Your task to perform on an android device: Toggle the flashlight Image 0: 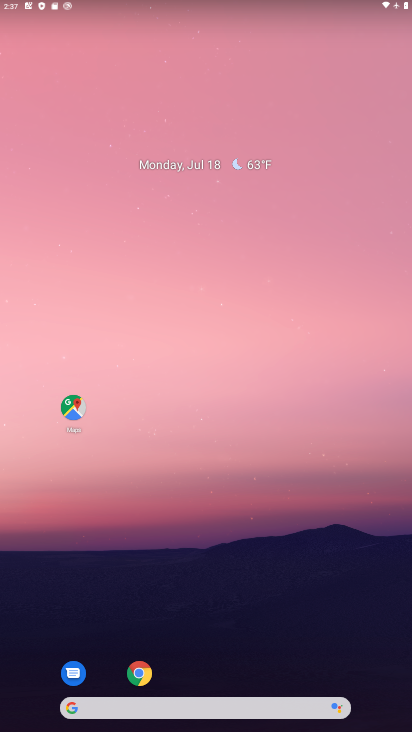
Step 0: drag from (223, 652) to (246, 247)
Your task to perform on an android device: Toggle the flashlight Image 1: 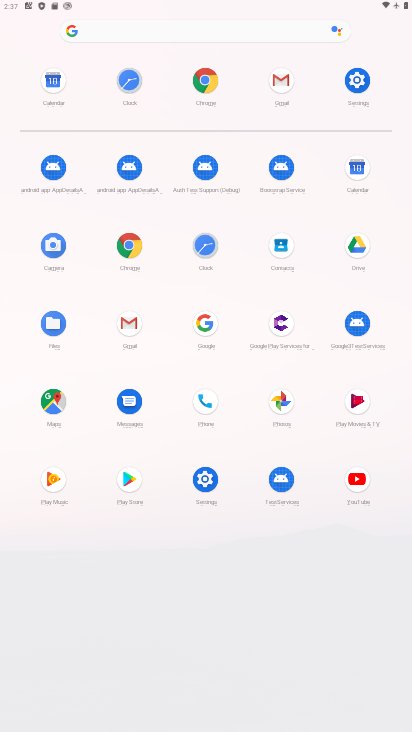
Step 1: click (360, 70)
Your task to perform on an android device: Toggle the flashlight Image 2: 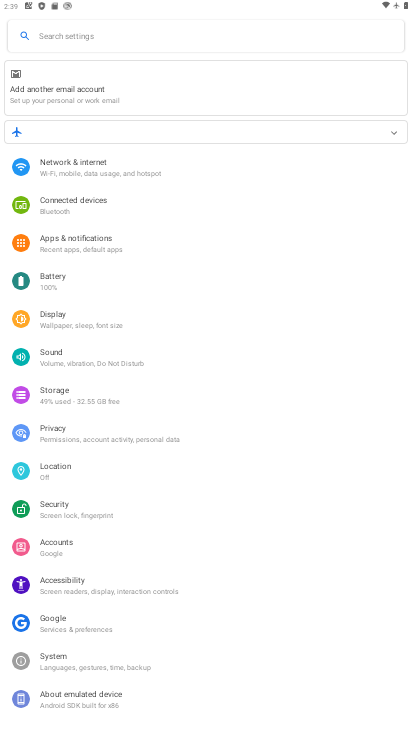
Step 2: task complete